Your task to perform on an android device: What's the price of the Sony TV? Image 0: 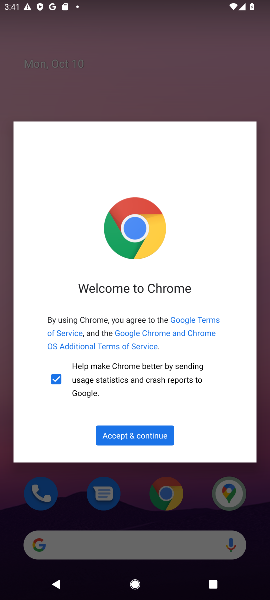
Step 0: press home button
Your task to perform on an android device: What's the price of the Sony TV? Image 1: 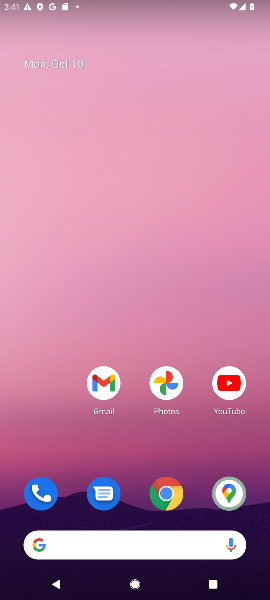
Step 1: click (104, 541)
Your task to perform on an android device: What's the price of the Sony TV? Image 2: 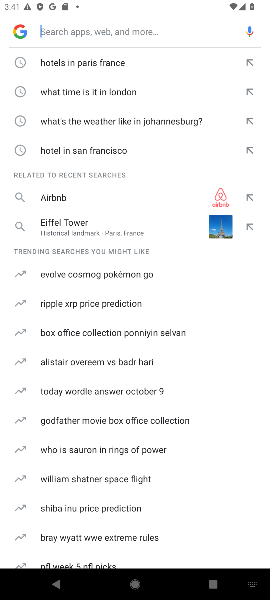
Step 2: type "What's the price of the Sony TV"
Your task to perform on an android device: What's the price of the Sony TV? Image 3: 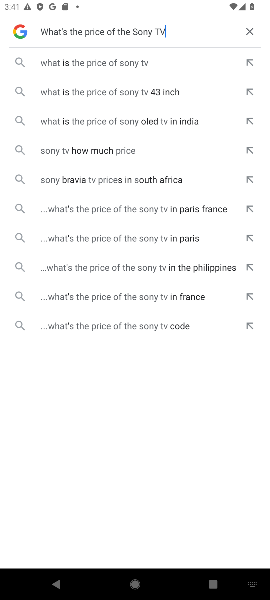
Step 3: click (85, 65)
Your task to perform on an android device: What's the price of the Sony TV? Image 4: 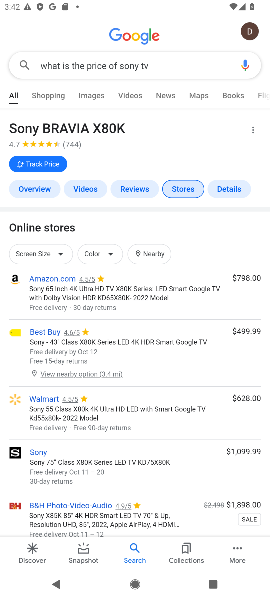
Step 4: task complete